Your task to perform on an android device: change the clock style Image 0: 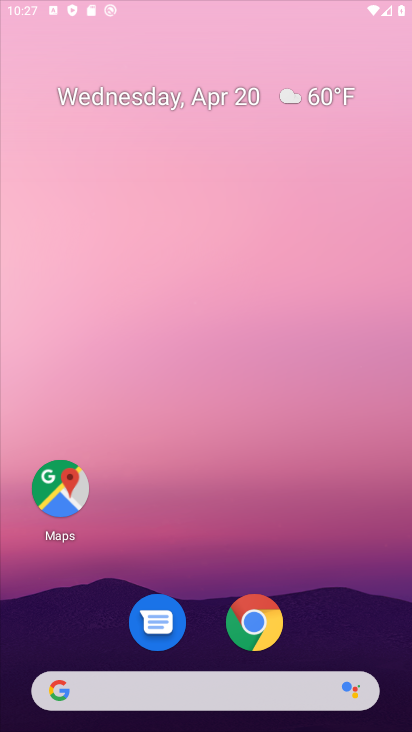
Step 0: click (289, 631)
Your task to perform on an android device: change the clock style Image 1: 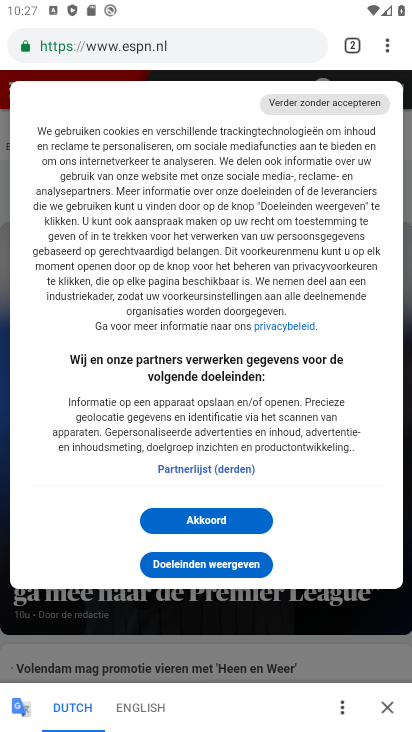
Step 1: press back button
Your task to perform on an android device: change the clock style Image 2: 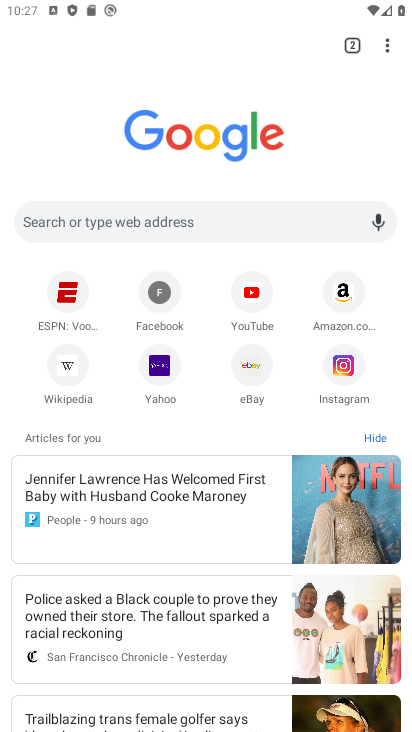
Step 2: press home button
Your task to perform on an android device: change the clock style Image 3: 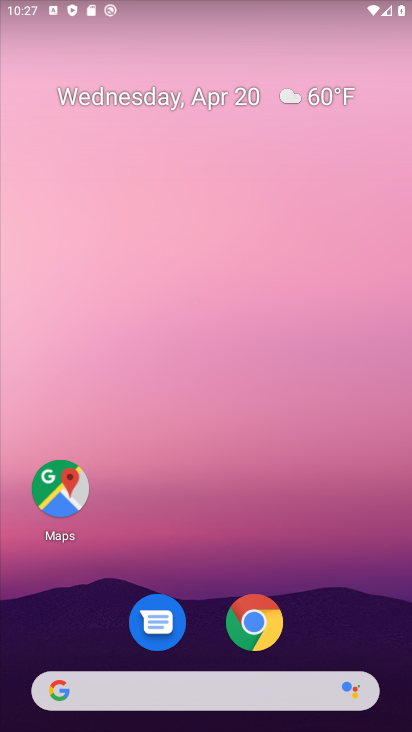
Step 3: drag from (311, 591) to (291, 142)
Your task to perform on an android device: change the clock style Image 4: 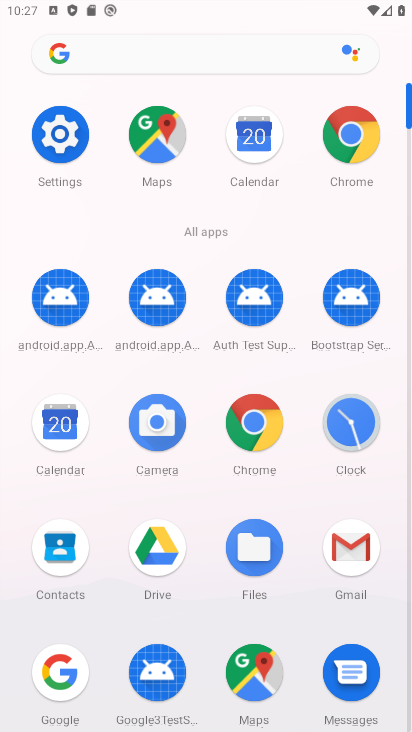
Step 4: click (371, 434)
Your task to perform on an android device: change the clock style Image 5: 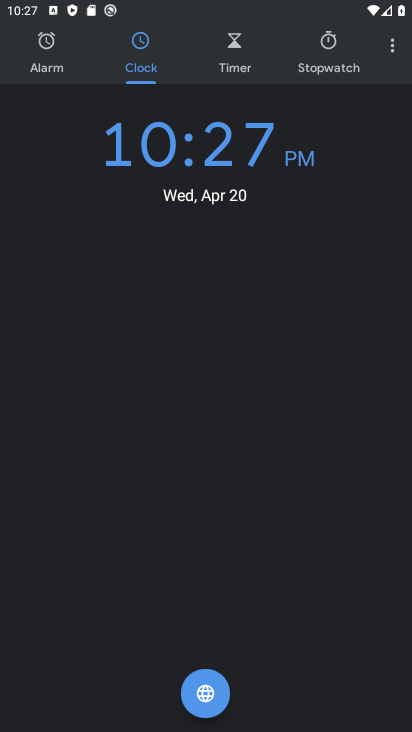
Step 5: click (390, 55)
Your task to perform on an android device: change the clock style Image 6: 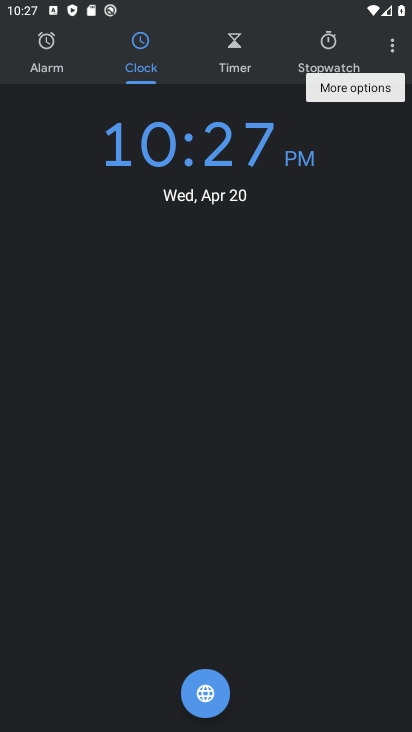
Step 6: click (394, 44)
Your task to perform on an android device: change the clock style Image 7: 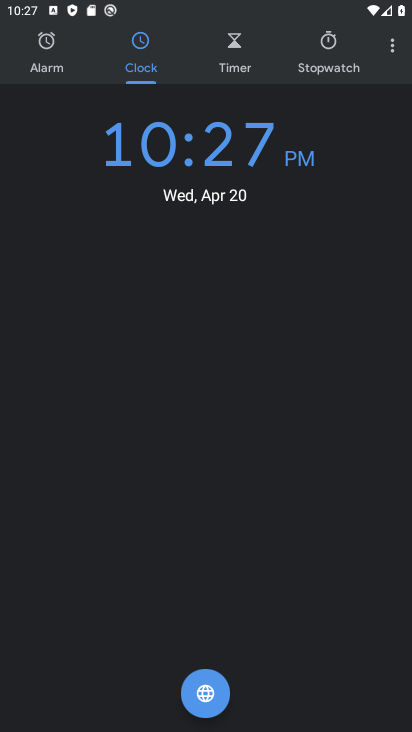
Step 7: click (391, 45)
Your task to perform on an android device: change the clock style Image 8: 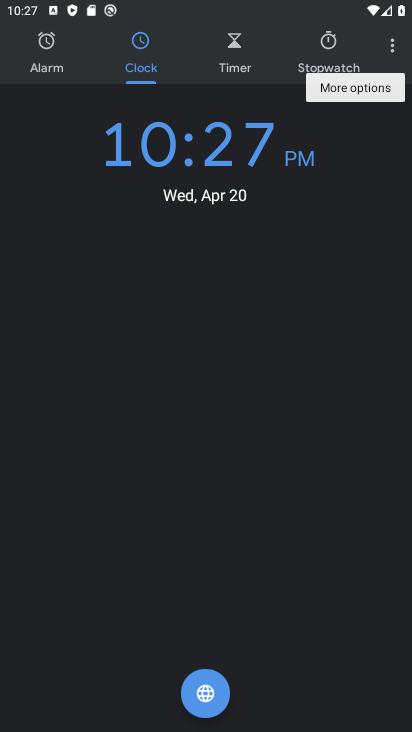
Step 8: click (362, 81)
Your task to perform on an android device: change the clock style Image 9: 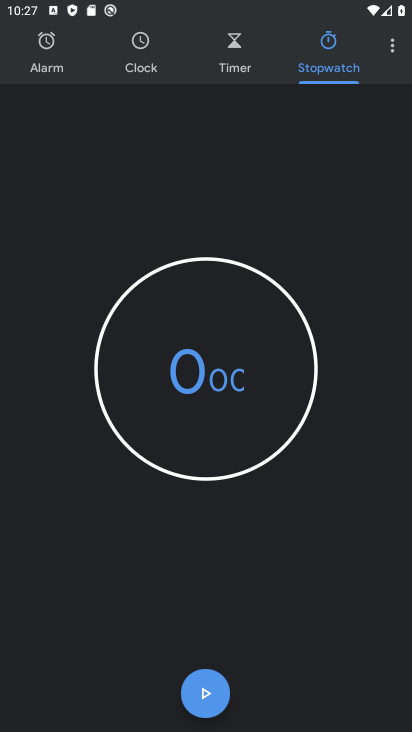
Step 9: click (385, 50)
Your task to perform on an android device: change the clock style Image 10: 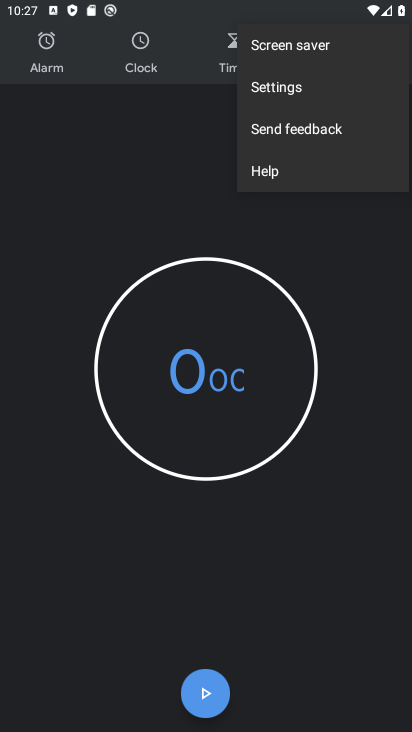
Step 10: click (311, 84)
Your task to perform on an android device: change the clock style Image 11: 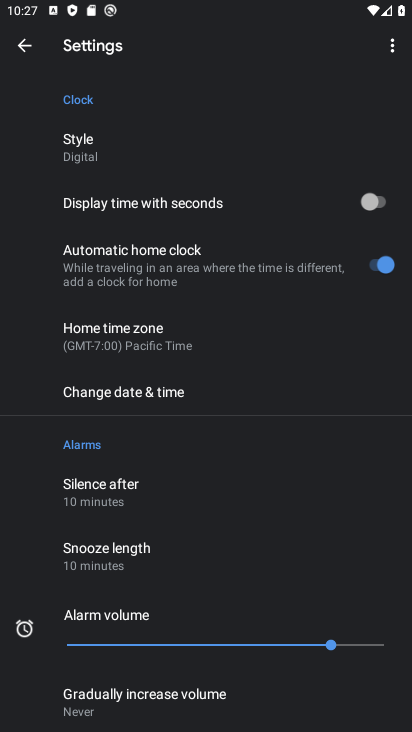
Step 11: click (97, 137)
Your task to perform on an android device: change the clock style Image 12: 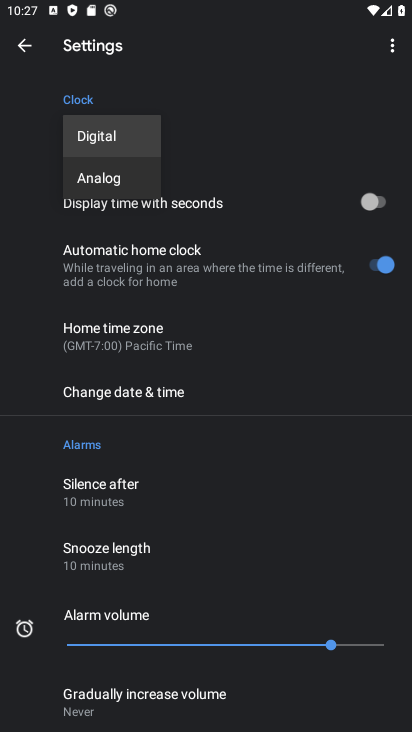
Step 12: click (210, 146)
Your task to perform on an android device: change the clock style Image 13: 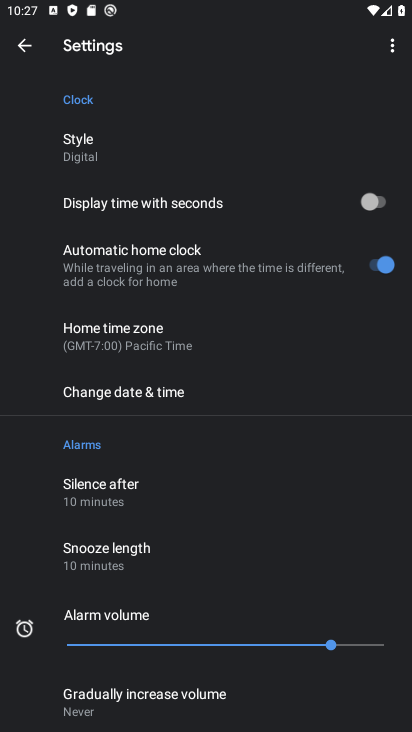
Step 13: click (62, 143)
Your task to perform on an android device: change the clock style Image 14: 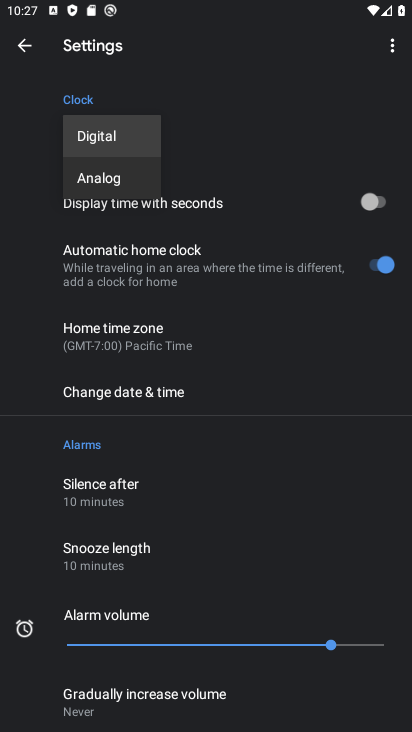
Step 14: click (98, 187)
Your task to perform on an android device: change the clock style Image 15: 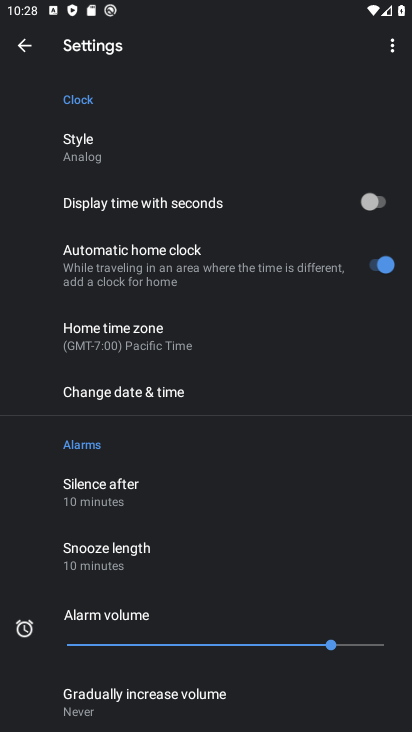
Step 15: task complete